Your task to perform on an android device: toggle improve location accuracy Image 0: 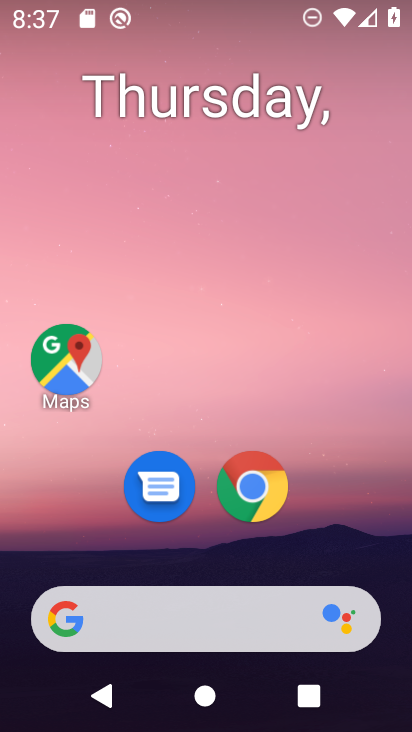
Step 0: drag from (134, 550) to (212, 5)
Your task to perform on an android device: toggle improve location accuracy Image 1: 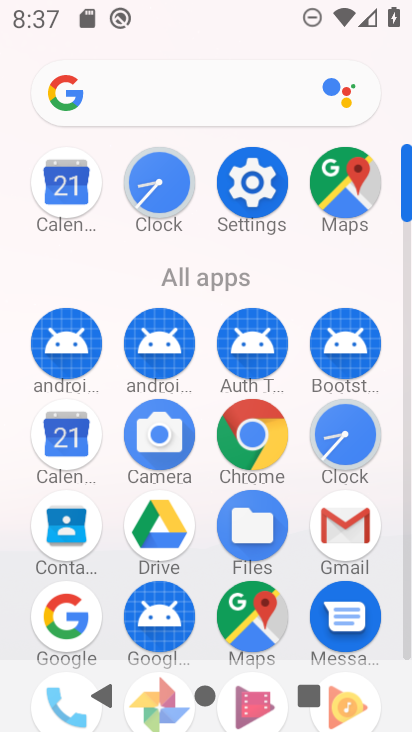
Step 1: click (236, 189)
Your task to perform on an android device: toggle improve location accuracy Image 2: 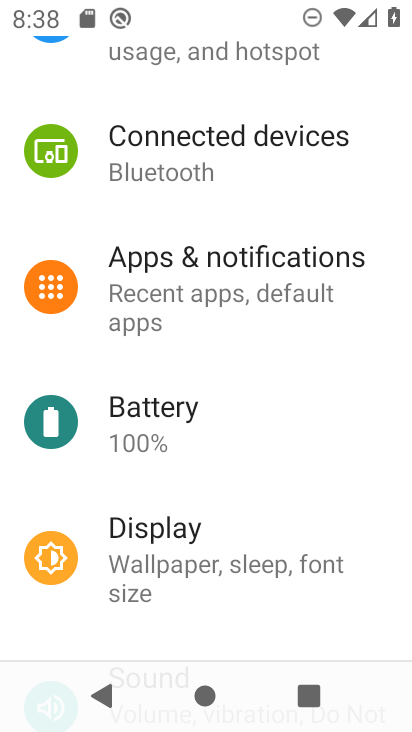
Step 2: drag from (138, 576) to (226, 132)
Your task to perform on an android device: toggle improve location accuracy Image 3: 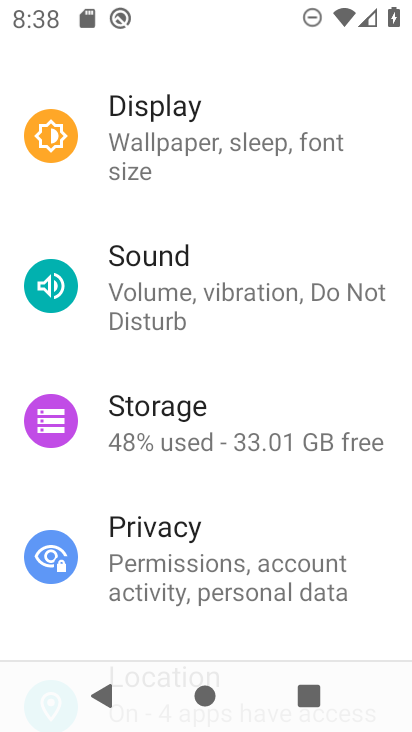
Step 3: drag from (225, 591) to (313, 167)
Your task to perform on an android device: toggle improve location accuracy Image 4: 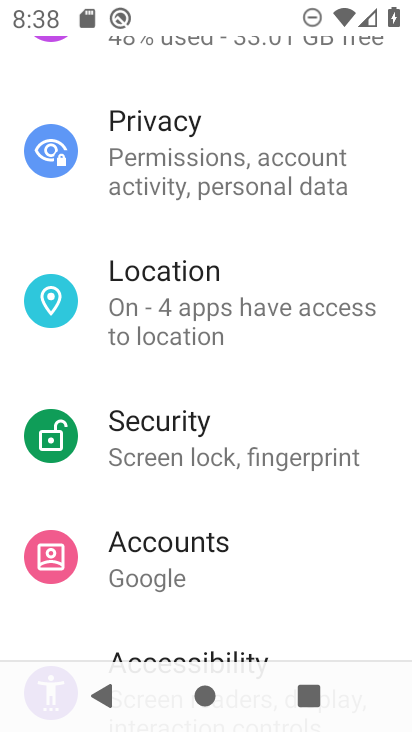
Step 4: click (153, 305)
Your task to perform on an android device: toggle improve location accuracy Image 5: 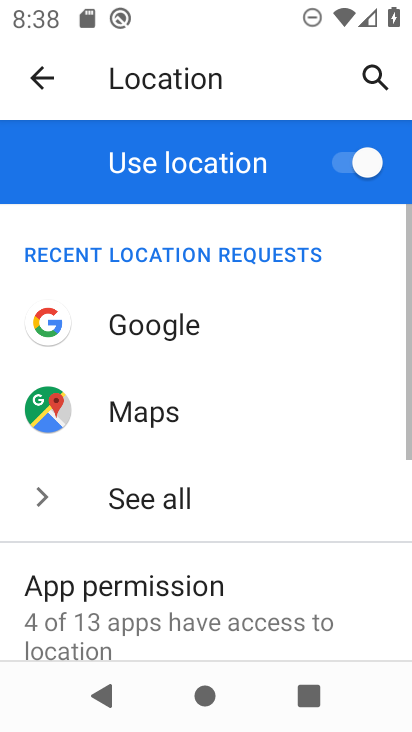
Step 5: drag from (145, 571) to (244, 99)
Your task to perform on an android device: toggle improve location accuracy Image 6: 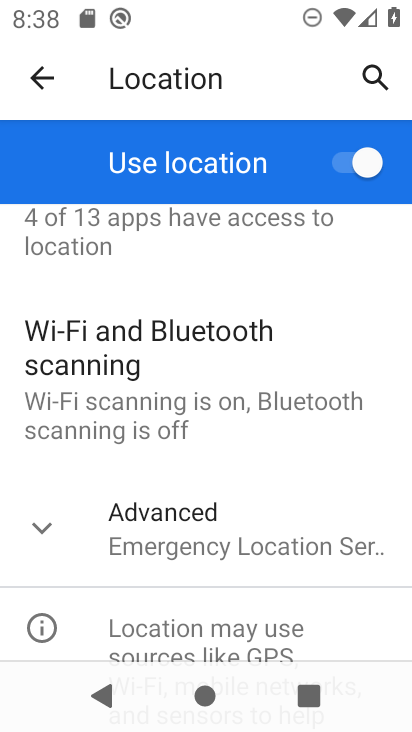
Step 6: click (143, 552)
Your task to perform on an android device: toggle improve location accuracy Image 7: 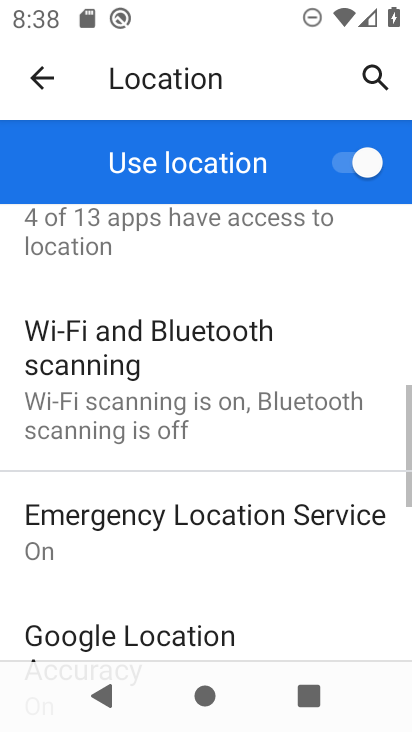
Step 7: drag from (185, 487) to (253, 114)
Your task to perform on an android device: toggle improve location accuracy Image 8: 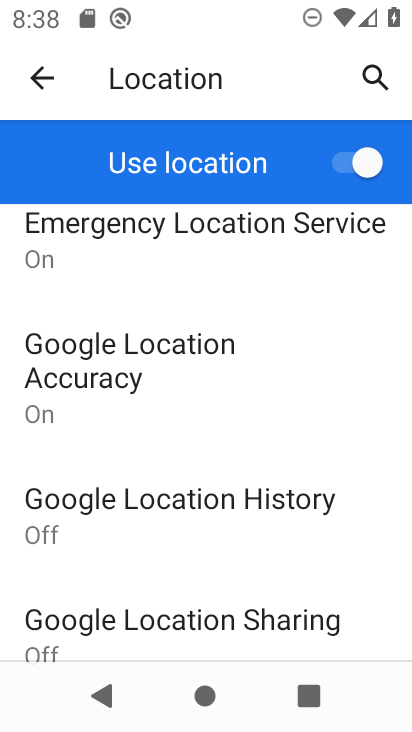
Step 8: click (93, 363)
Your task to perform on an android device: toggle improve location accuracy Image 9: 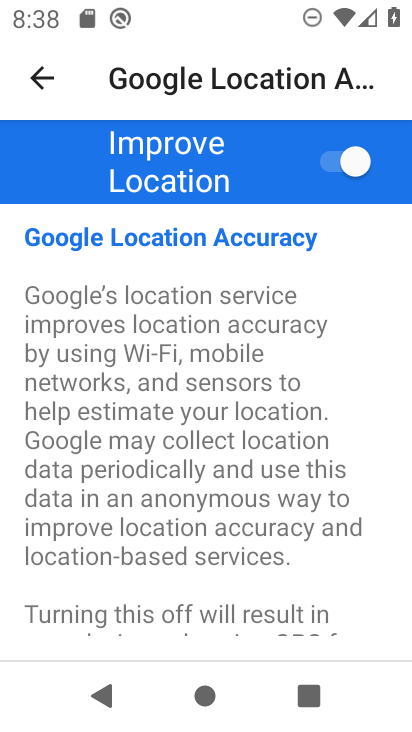
Step 9: click (352, 158)
Your task to perform on an android device: toggle improve location accuracy Image 10: 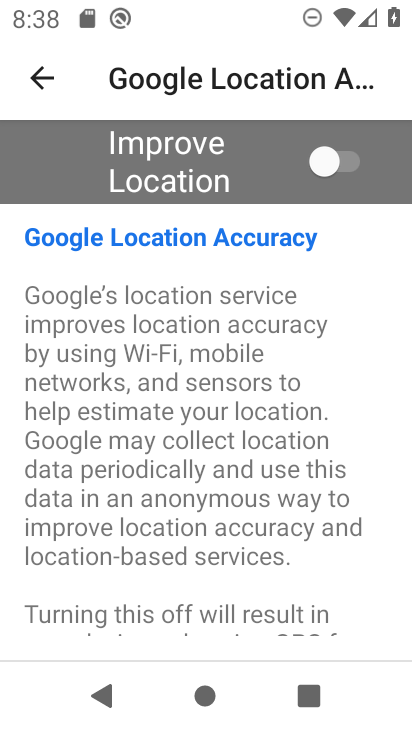
Step 10: task complete